Your task to perform on an android device: Go to notification settings Image 0: 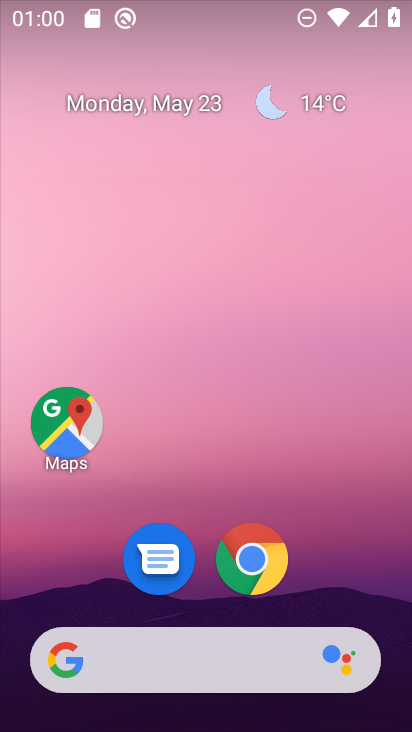
Step 0: drag from (350, 614) to (371, 0)
Your task to perform on an android device: Go to notification settings Image 1: 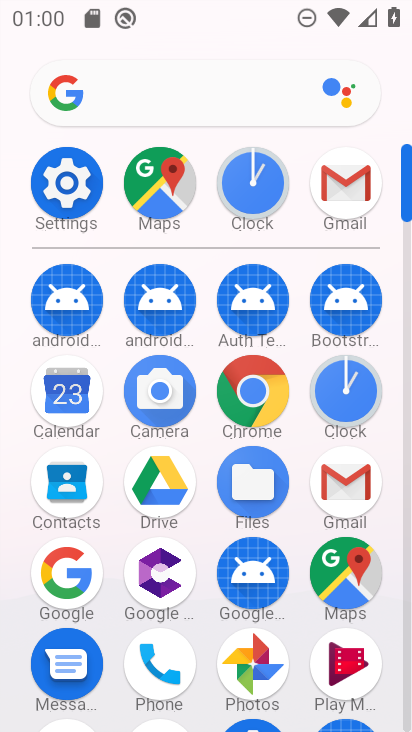
Step 1: click (56, 182)
Your task to perform on an android device: Go to notification settings Image 2: 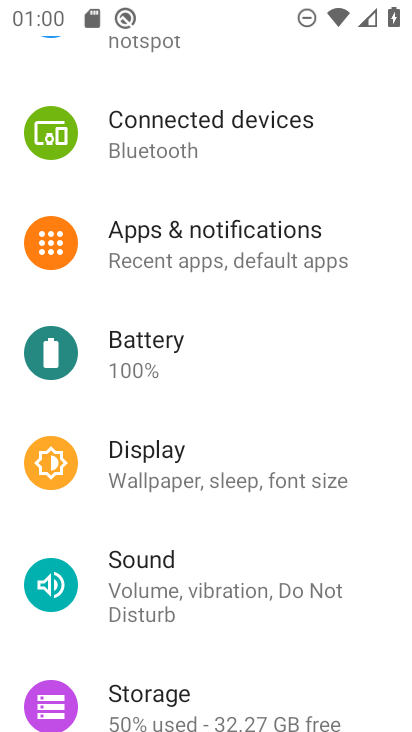
Step 2: click (195, 258)
Your task to perform on an android device: Go to notification settings Image 3: 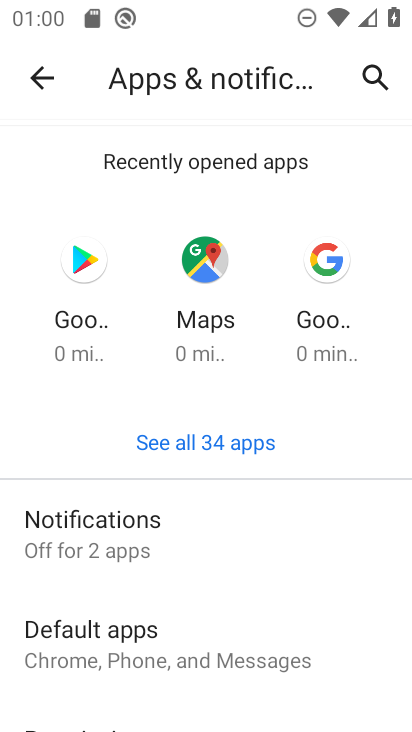
Step 3: task complete